Your task to perform on an android device: add a label to a message in the gmail app Image 0: 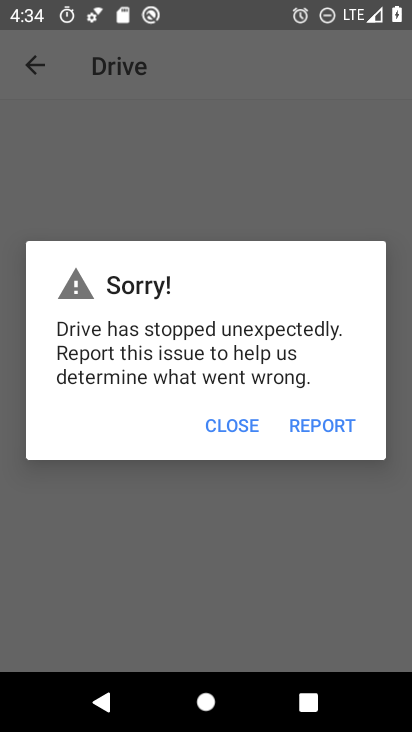
Step 0: press home button
Your task to perform on an android device: add a label to a message in the gmail app Image 1: 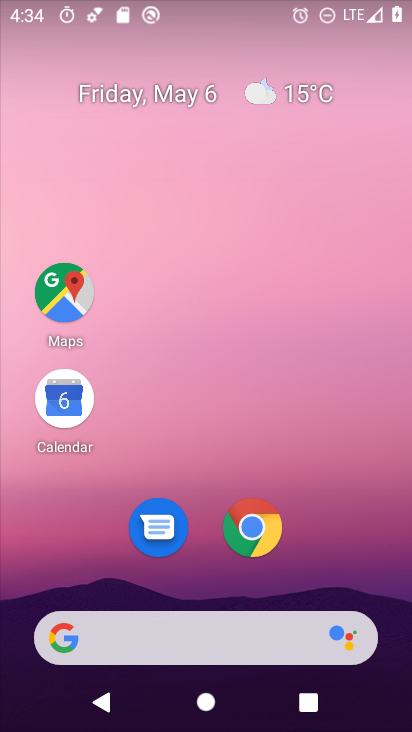
Step 1: drag from (336, 539) to (357, 155)
Your task to perform on an android device: add a label to a message in the gmail app Image 2: 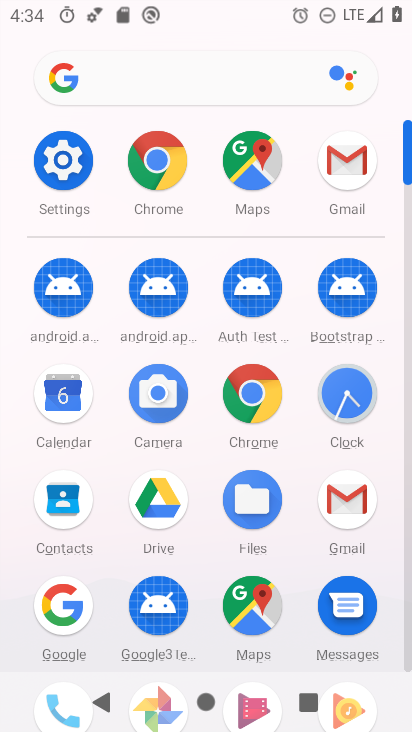
Step 2: click (358, 163)
Your task to perform on an android device: add a label to a message in the gmail app Image 3: 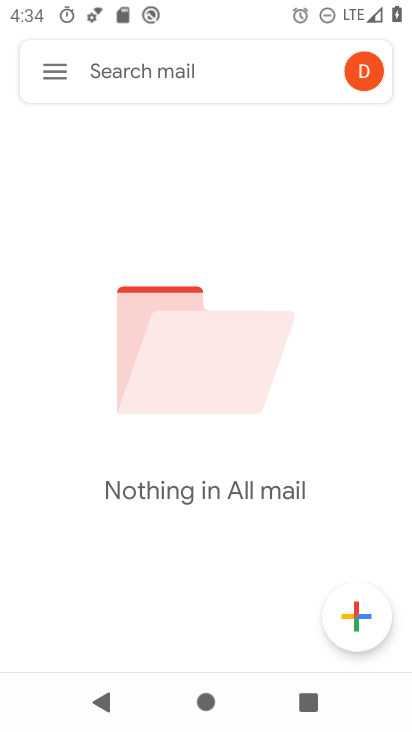
Step 3: task complete